Your task to perform on an android device: set the timer Image 0: 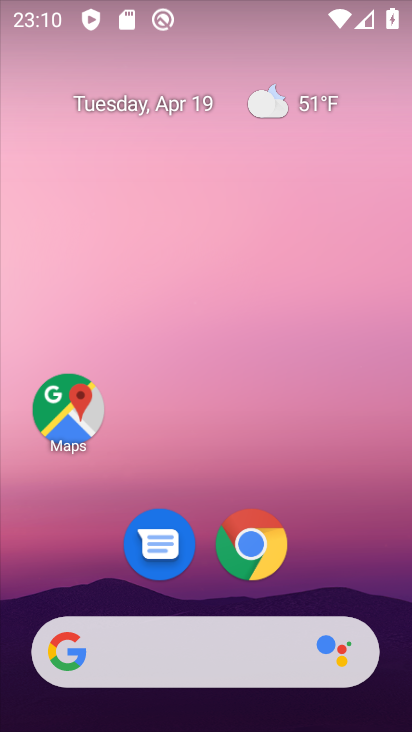
Step 0: drag from (317, 561) to (324, 102)
Your task to perform on an android device: set the timer Image 1: 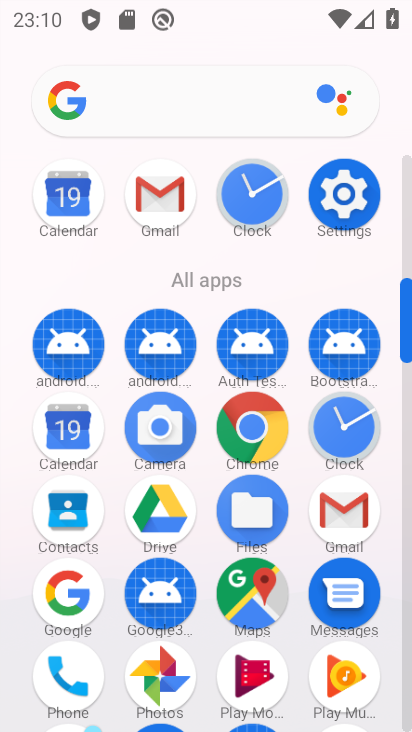
Step 1: click (328, 423)
Your task to perform on an android device: set the timer Image 2: 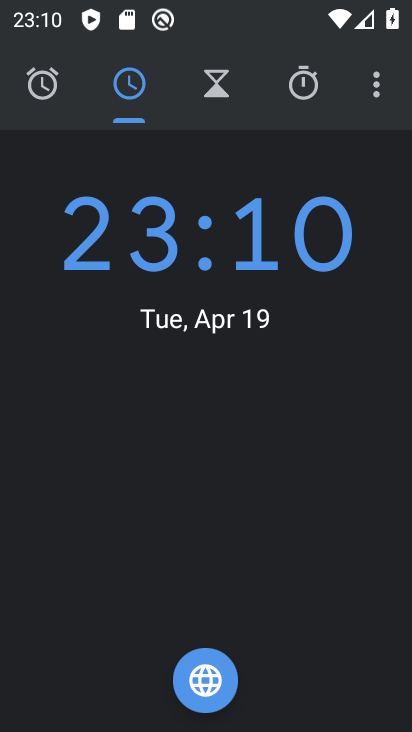
Step 2: click (216, 98)
Your task to perform on an android device: set the timer Image 3: 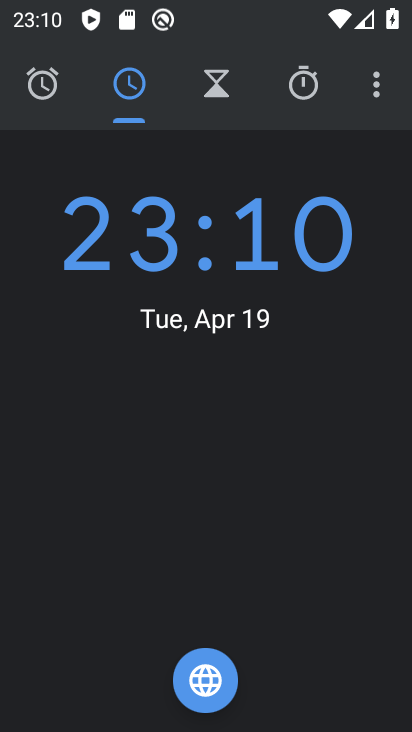
Step 3: click (216, 98)
Your task to perform on an android device: set the timer Image 4: 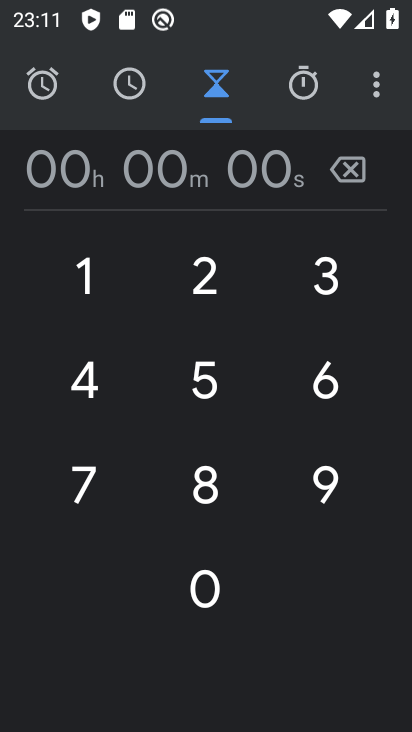
Step 4: click (203, 382)
Your task to perform on an android device: set the timer Image 5: 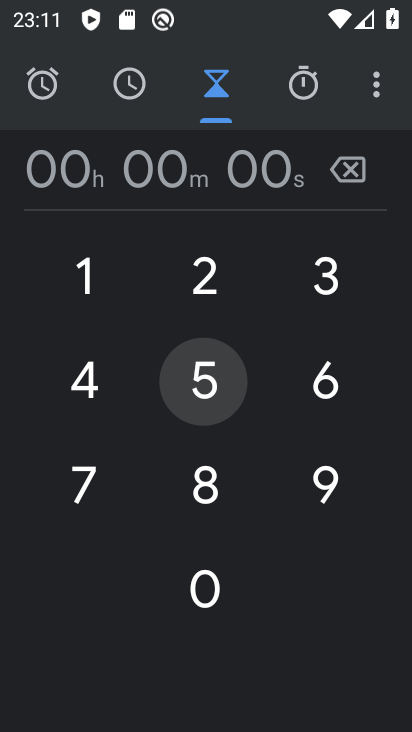
Step 5: click (203, 381)
Your task to perform on an android device: set the timer Image 6: 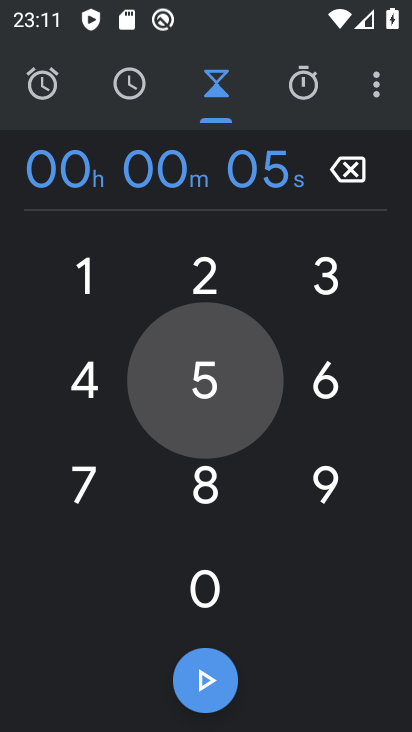
Step 6: click (203, 381)
Your task to perform on an android device: set the timer Image 7: 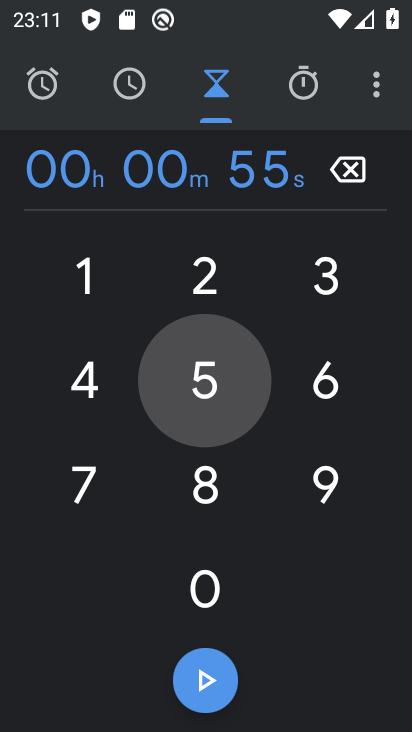
Step 7: click (203, 381)
Your task to perform on an android device: set the timer Image 8: 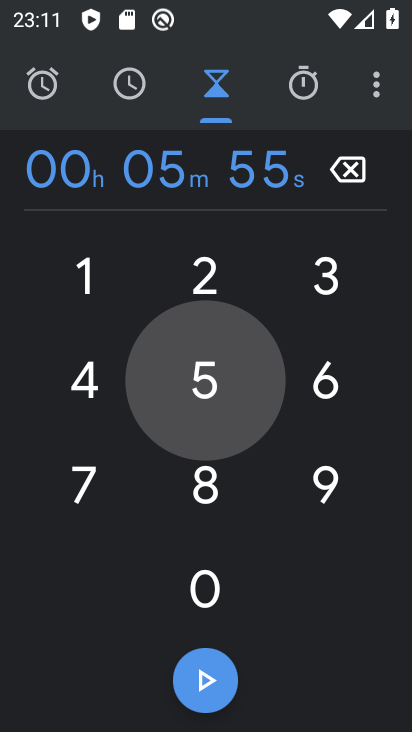
Step 8: click (203, 381)
Your task to perform on an android device: set the timer Image 9: 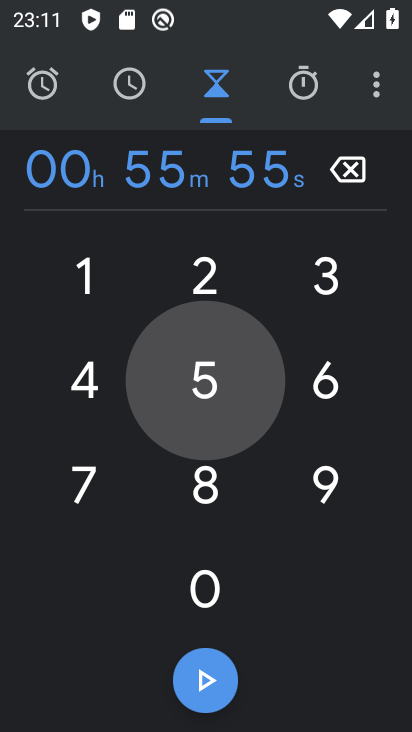
Step 9: click (203, 381)
Your task to perform on an android device: set the timer Image 10: 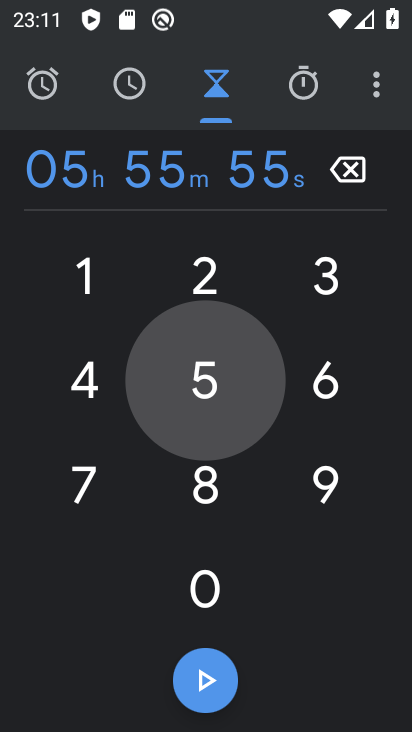
Step 10: click (203, 381)
Your task to perform on an android device: set the timer Image 11: 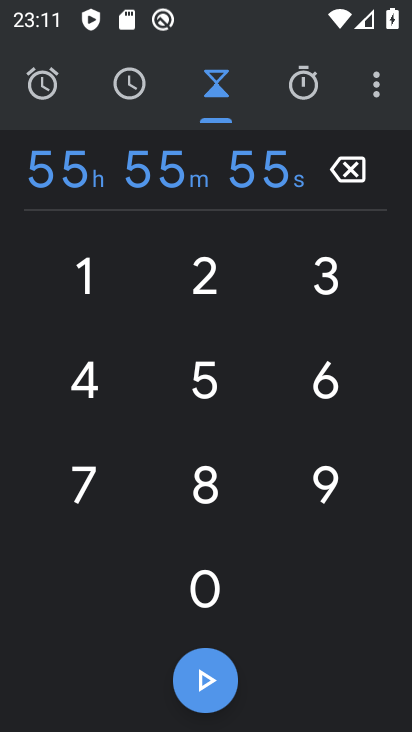
Step 11: click (210, 708)
Your task to perform on an android device: set the timer Image 12: 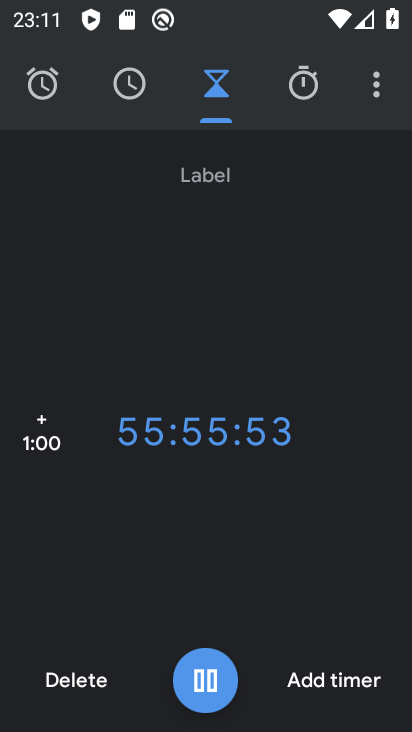
Step 12: task complete